Your task to perform on an android device: delete a single message in the gmail app Image 0: 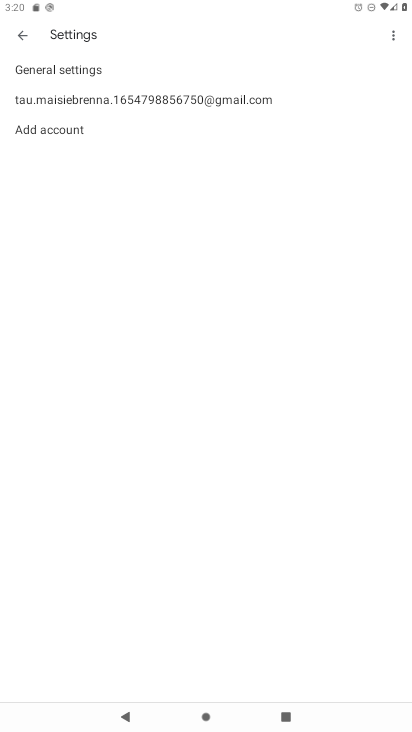
Step 0: press home button
Your task to perform on an android device: delete a single message in the gmail app Image 1: 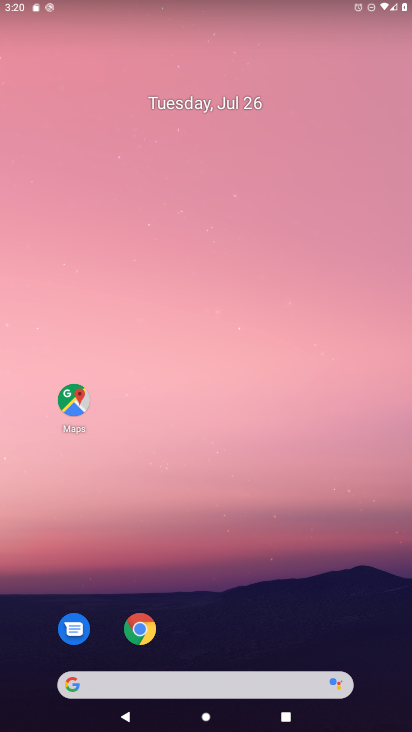
Step 1: drag from (229, 639) to (235, 277)
Your task to perform on an android device: delete a single message in the gmail app Image 2: 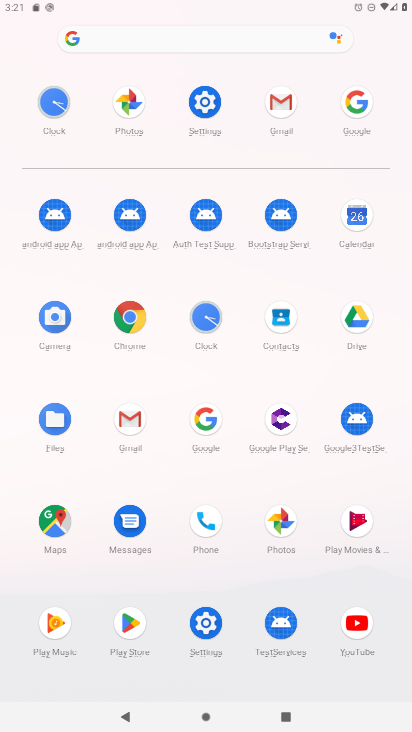
Step 2: click (277, 125)
Your task to perform on an android device: delete a single message in the gmail app Image 3: 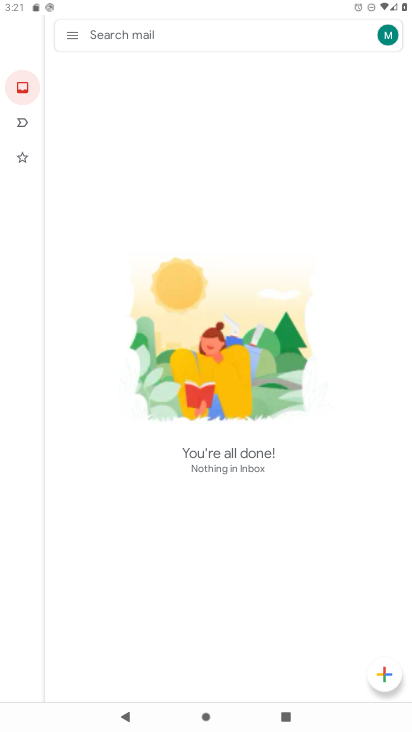
Step 3: click (64, 30)
Your task to perform on an android device: delete a single message in the gmail app Image 4: 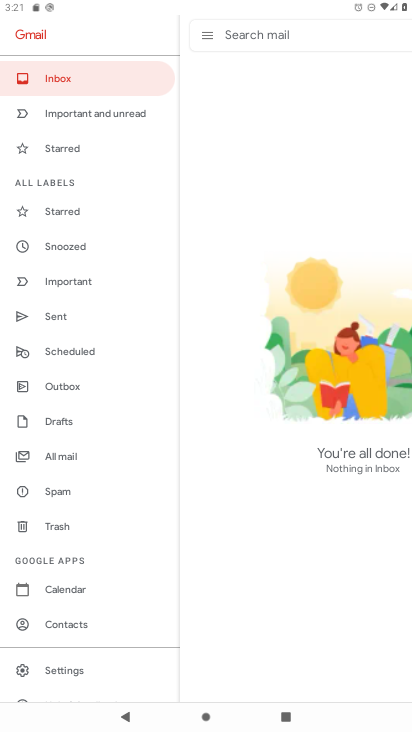
Step 4: click (87, 459)
Your task to perform on an android device: delete a single message in the gmail app Image 5: 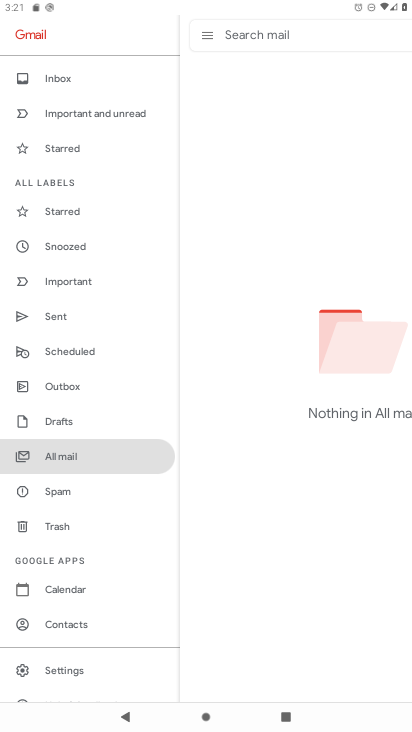
Step 5: task complete